Your task to perform on an android device: change notifications settings Image 0: 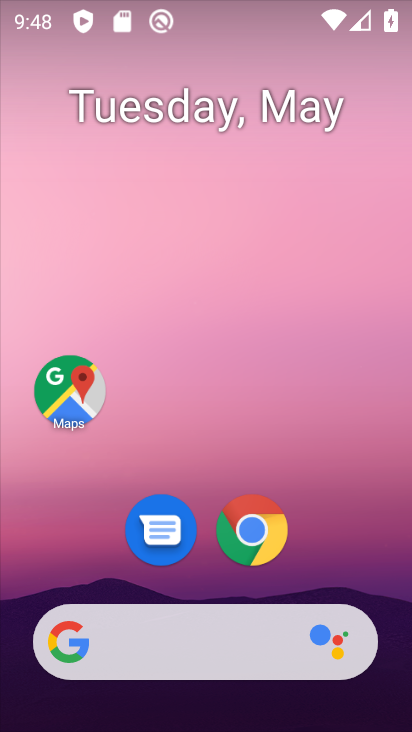
Step 0: drag from (211, 584) to (245, 95)
Your task to perform on an android device: change notifications settings Image 1: 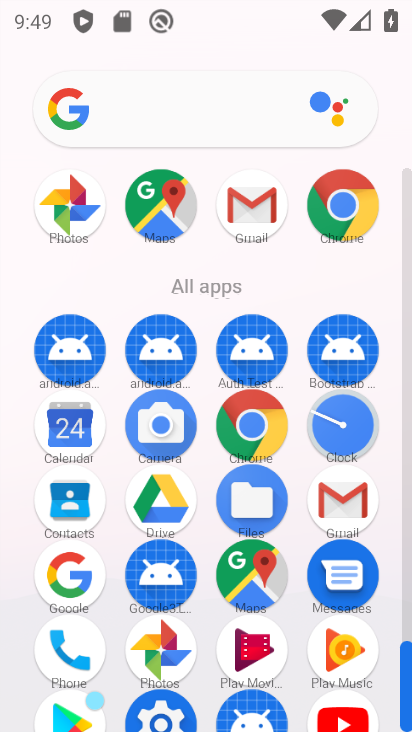
Step 1: drag from (194, 685) to (198, 287)
Your task to perform on an android device: change notifications settings Image 2: 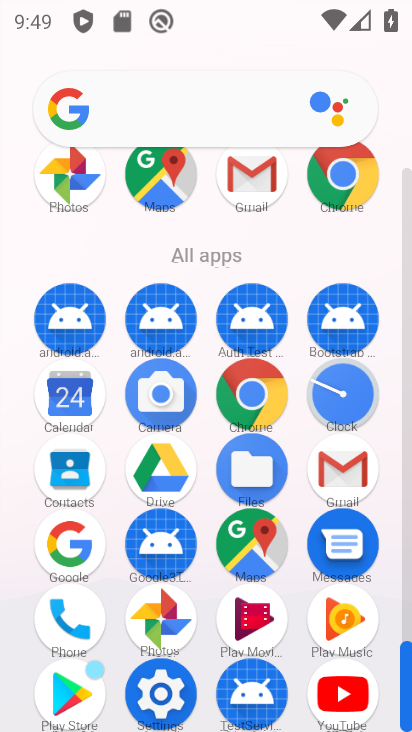
Step 2: click (168, 673)
Your task to perform on an android device: change notifications settings Image 3: 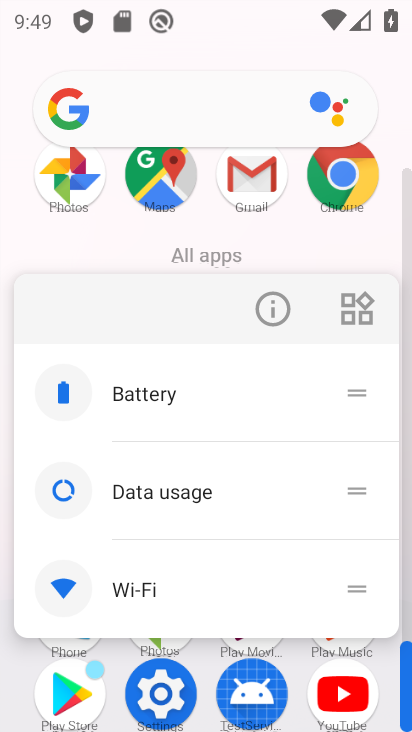
Step 3: click (268, 315)
Your task to perform on an android device: change notifications settings Image 4: 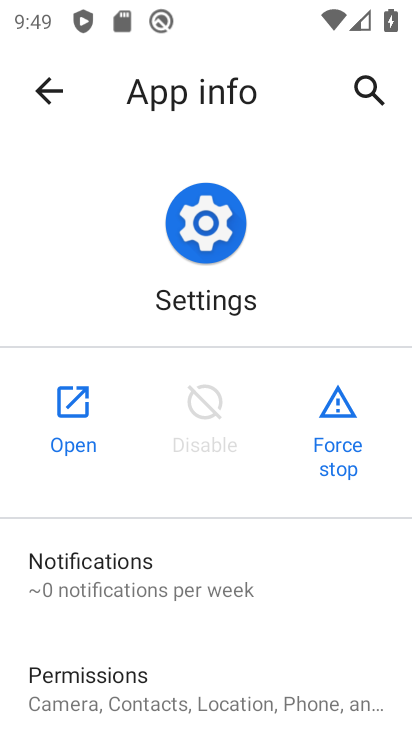
Step 4: click (76, 402)
Your task to perform on an android device: change notifications settings Image 5: 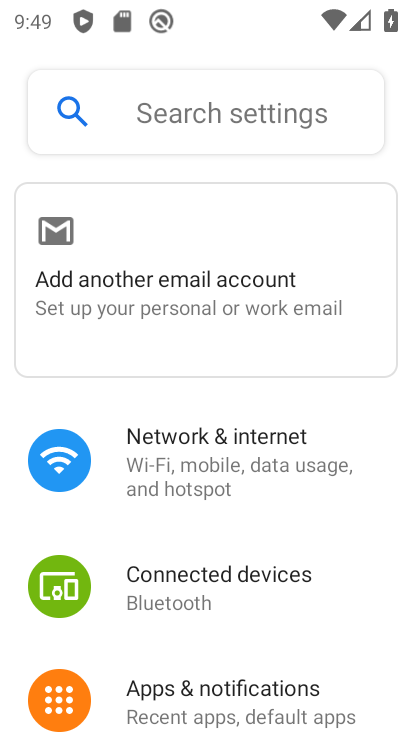
Step 5: drag from (206, 592) to (262, 187)
Your task to perform on an android device: change notifications settings Image 6: 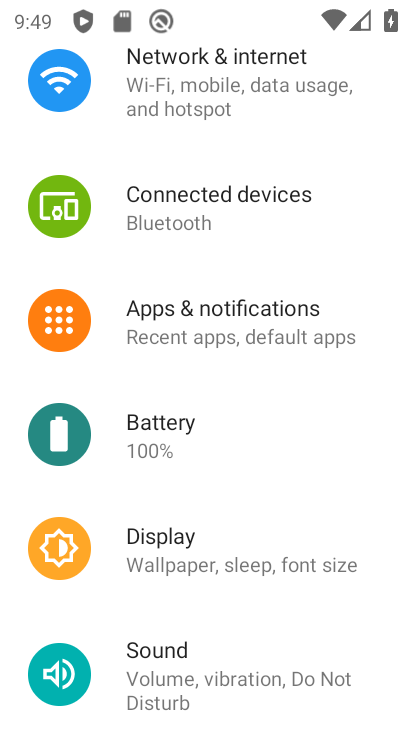
Step 6: drag from (230, 381) to (217, 59)
Your task to perform on an android device: change notifications settings Image 7: 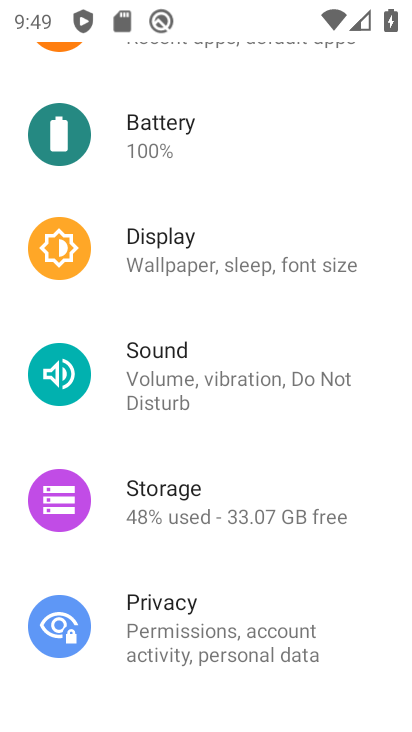
Step 7: drag from (226, 191) to (338, 703)
Your task to perform on an android device: change notifications settings Image 8: 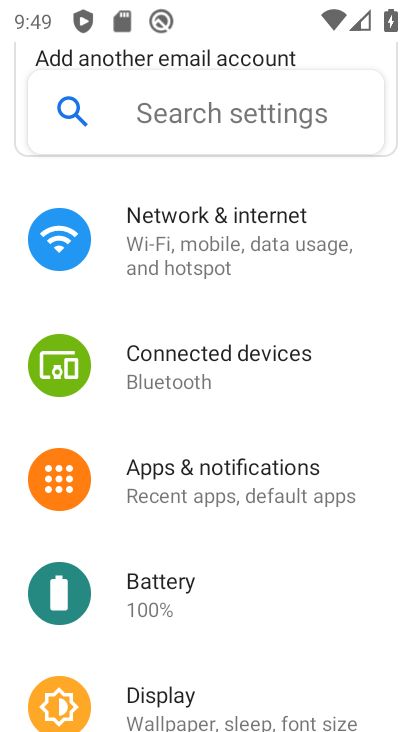
Step 8: drag from (272, 568) to (331, 66)
Your task to perform on an android device: change notifications settings Image 9: 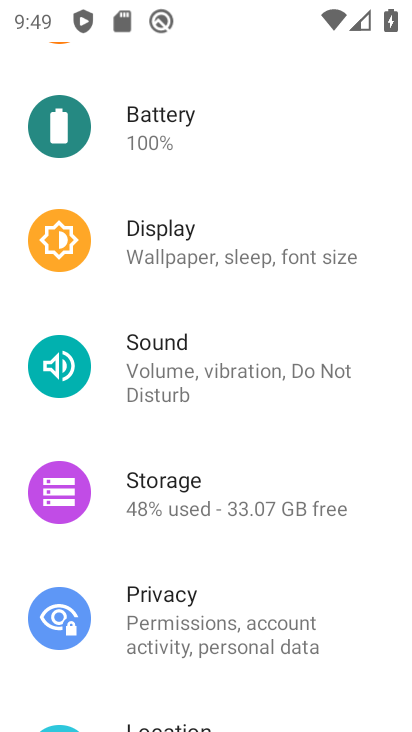
Step 9: drag from (160, 641) to (231, 199)
Your task to perform on an android device: change notifications settings Image 10: 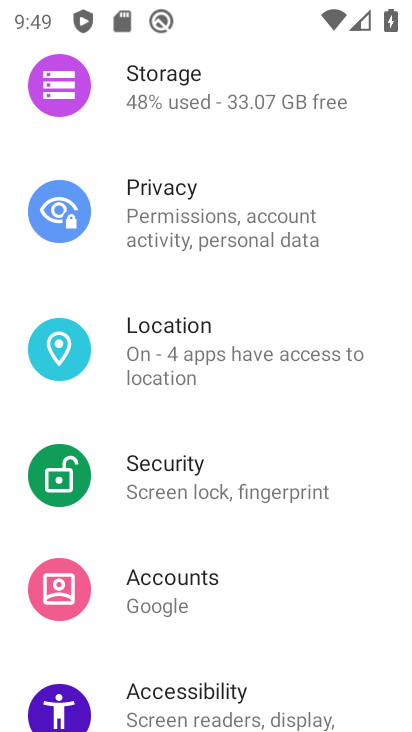
Step 10: drag from (225, 522) to (280, 158)
Your task to perform on an android device: change notifications settings Image 11: 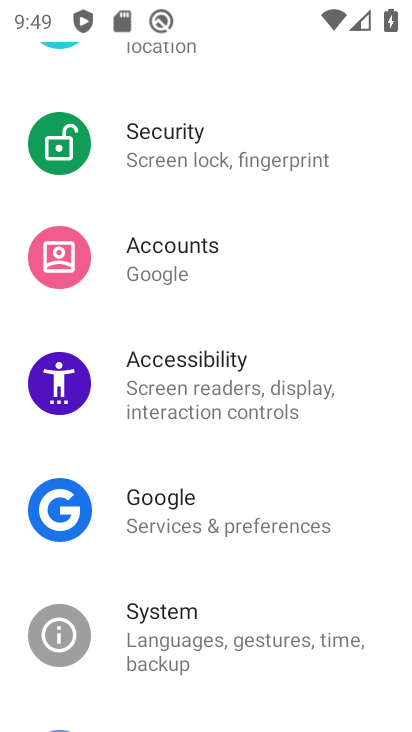
Step 11: drag from (215, 517) to (256, 186)
Your task to perform on an android device: change notifications settings Image 12: 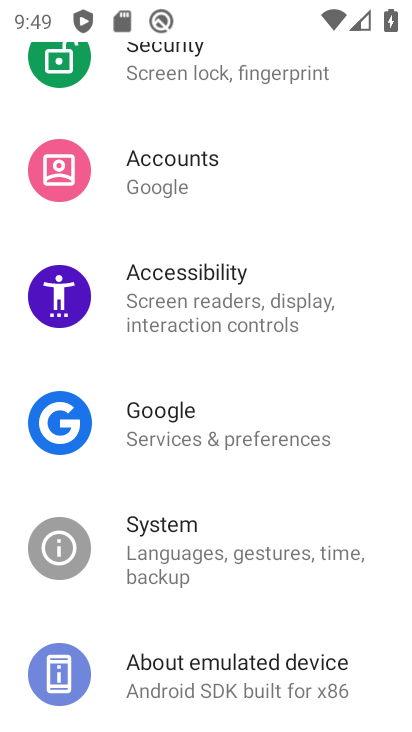
Step 12: drag from (230, 614) to (287, 188)
Your task to perform on an android device: change notifications settings Image 13: 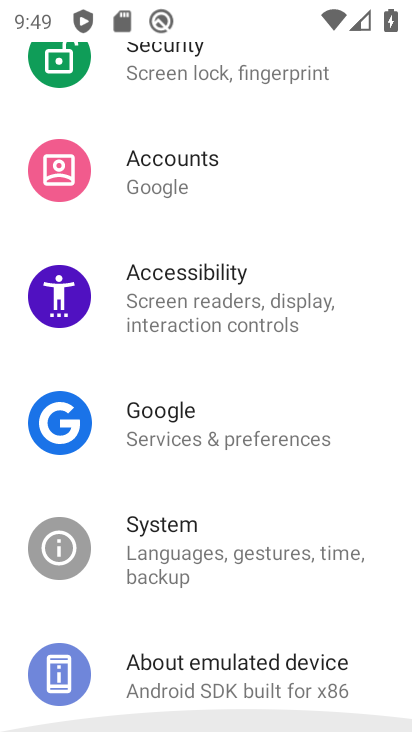
Step 13: drag from (300, 135) to (293, 687)
Your task to perform on an android device: change notifications settings Image 14: 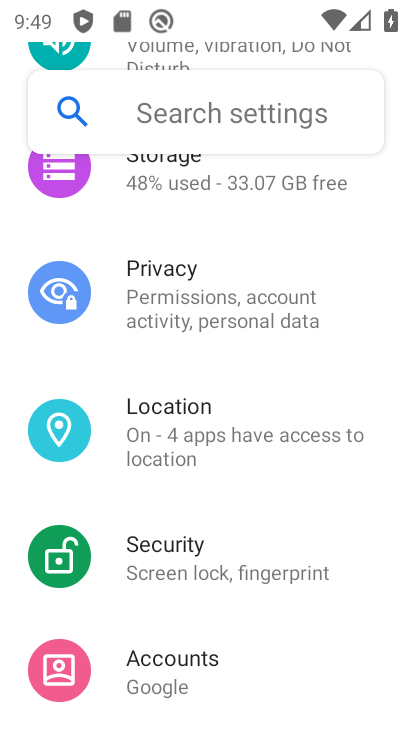
Step 14: drag from (222, 308) to (286, 663)
Your task to perform on an android device: change notifications settings Image 15: 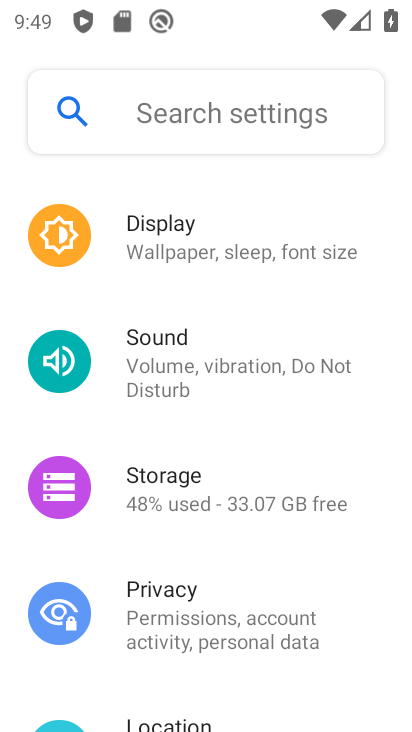
Step 15: drag from (195, 544) to (239, 305)
Your task to perform on an android device: change notifications settings Image 16: 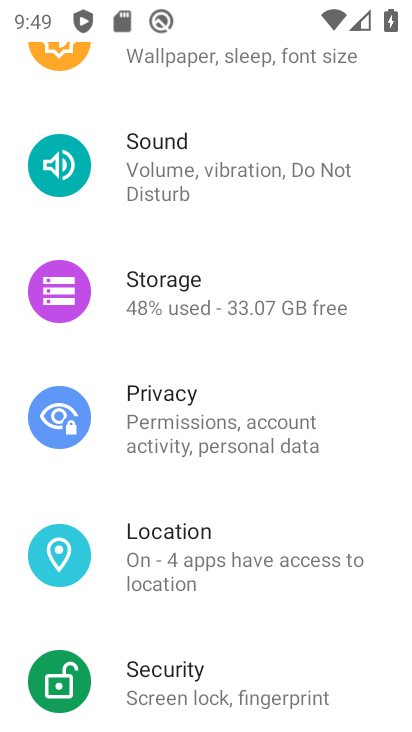
Step 16: drag from (238, 285) to (259, 650)
Your task to perform on an android device: change notifications settings Image 17: 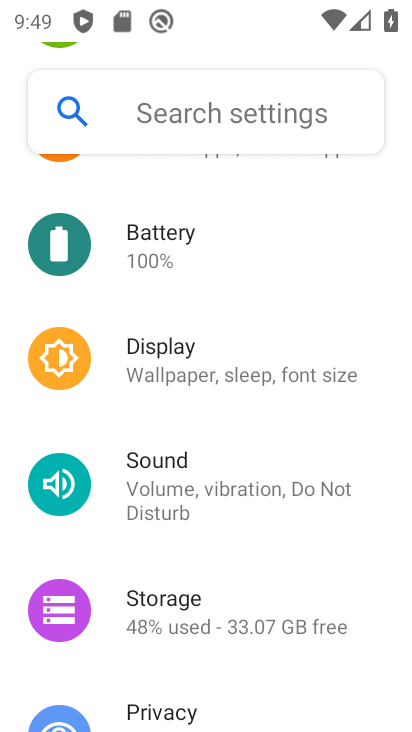
Step 17: drag from (238, 596) to (266, 710)
Your task to perform on an android device: change notifications settings Image 18: 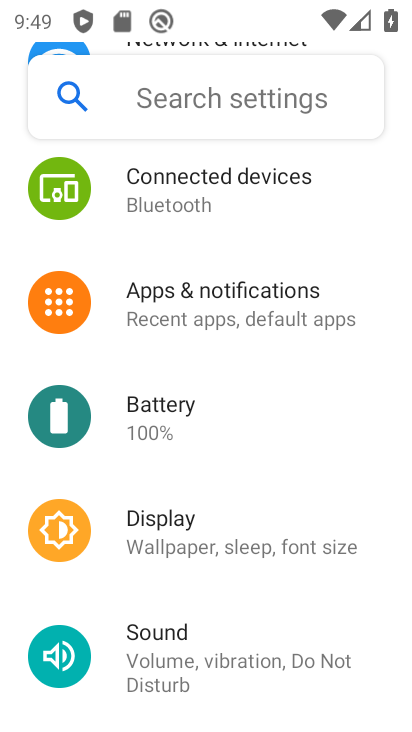
Step 18: click (183, 308)
Your task to perform on an android device: change notifications settings Image 19: 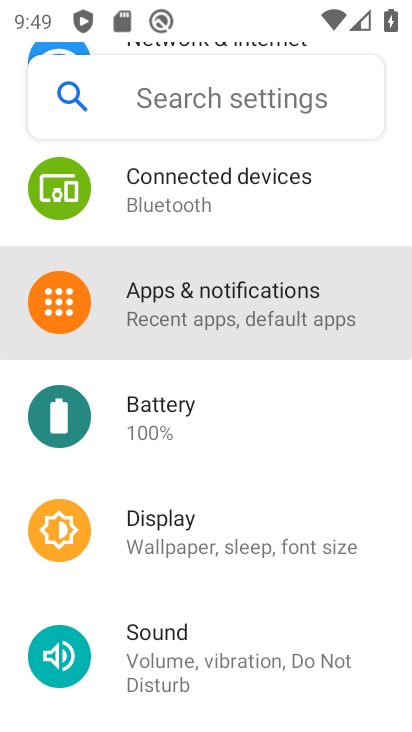
Step 19: click (183, 308)
Your task to perform on an android device: change notifications settings Image 20: 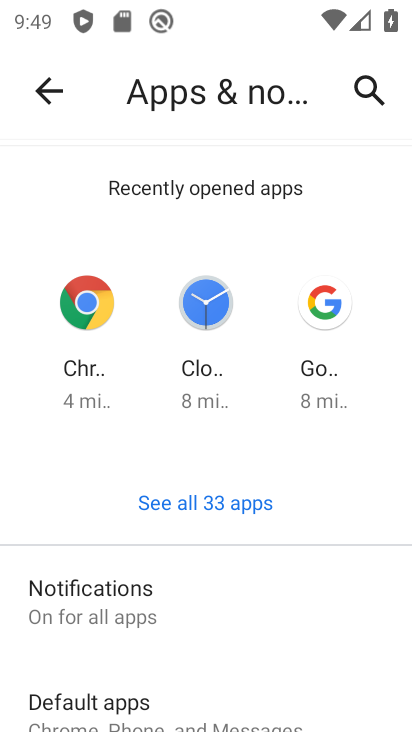
Step 20: drag from (275, 269) to (276, 606)
Your task to perform on an android device: change notifications settings Image 21: 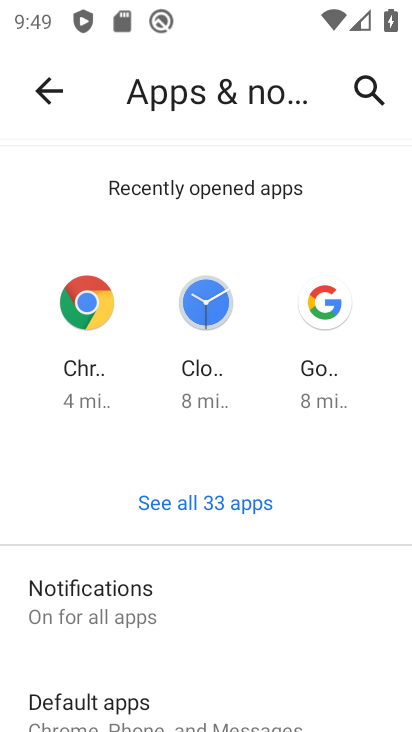
Step 21: drag from (248, 350) to (294, 642)
Your task to perform on an android device: change notifications settings Image 22: 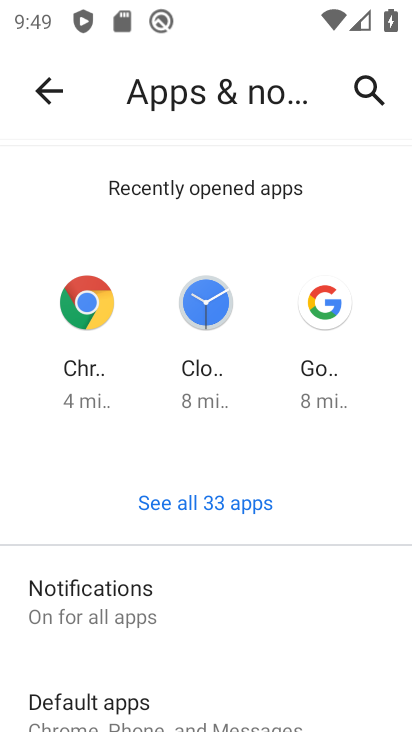
Step 22: drag from (218, 595) to (299, 243)
Your task to perform on an android device: change notifications settings Image 23: 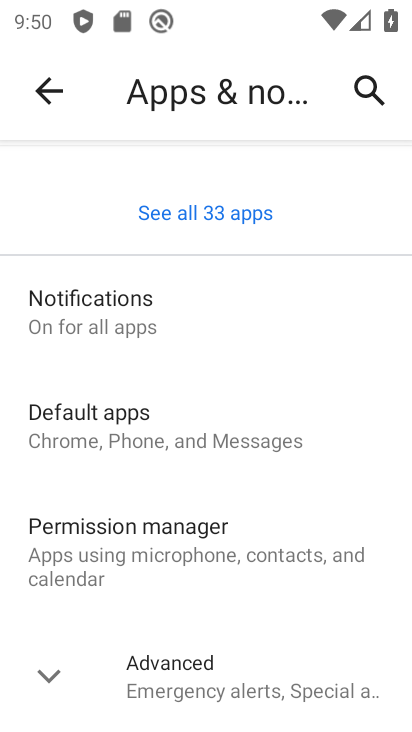
Step 23: click (203, 282)
Your task to perform on an android device: change notifications settings Image 24: 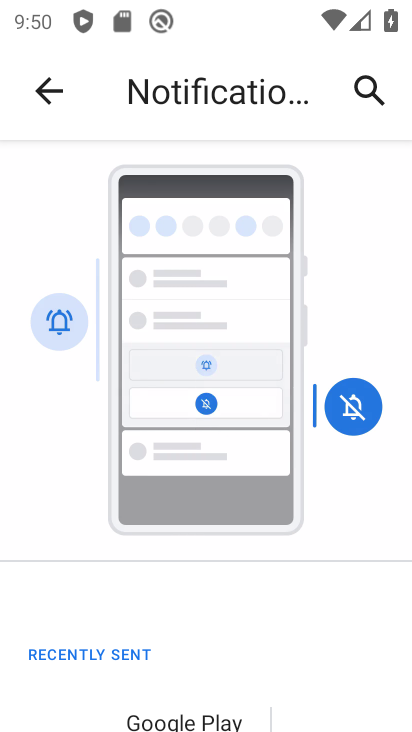
Step 24: drag from (232, 594) to (356, 30)
Your task to perform on an android device: change notifications settings Image 25: 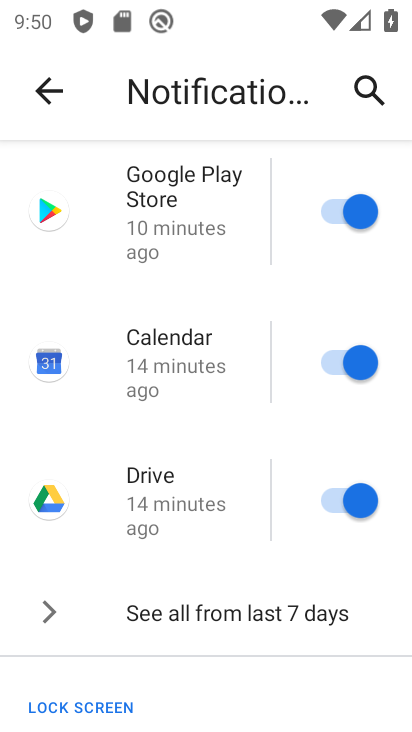
Step 25: drag from (213, 494) to (212, 78)
Your task to perform on an android device: change notifications settings Image 26: 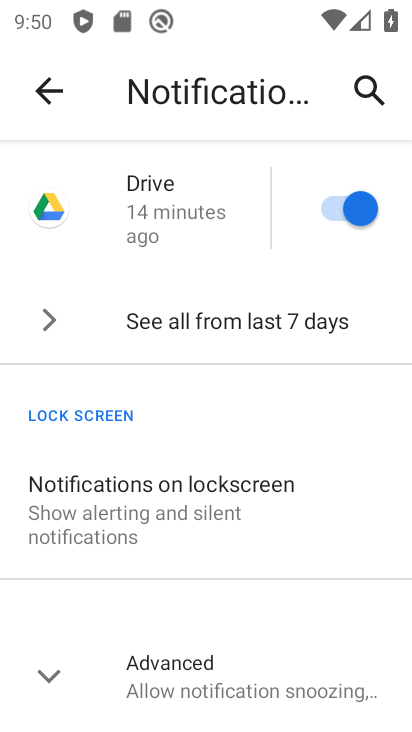
Step 26: drag from (203, 504) to (219, 148)
Your task to perform on an android device: change notifications settings Image 27: 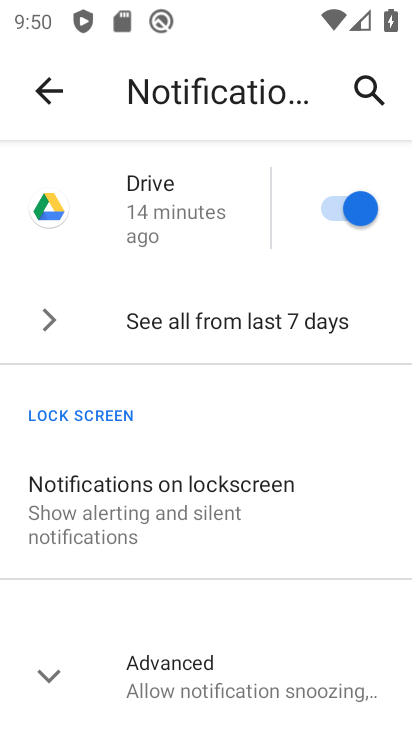
Step 27: click (194, 693)
Your task to perform on an android device: change notifications settings Image 28: 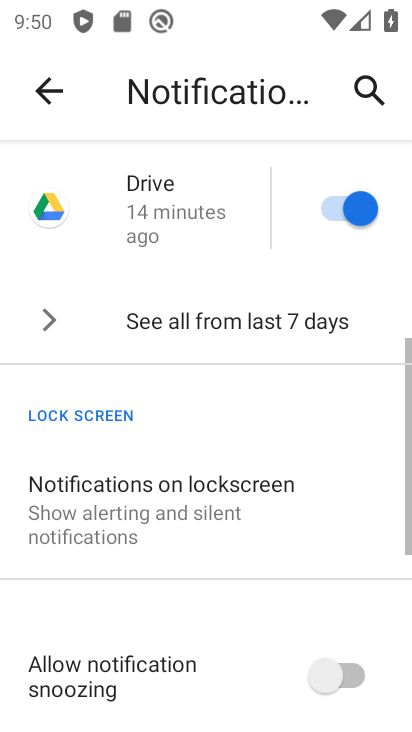
Step 28: drag from (192, 680) to (279, 227)
Your task to perform on an android device: change notifications settings Image 29: 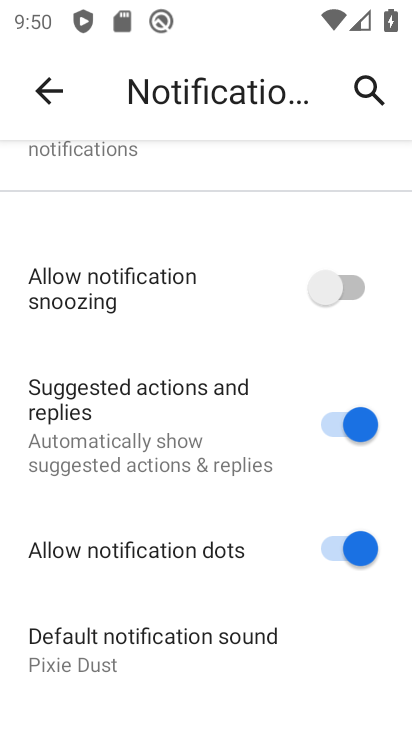
Step 29: drag from (310, 577) to (336, 231)
Your task to perform on an android device: change notifications settings Image 30: 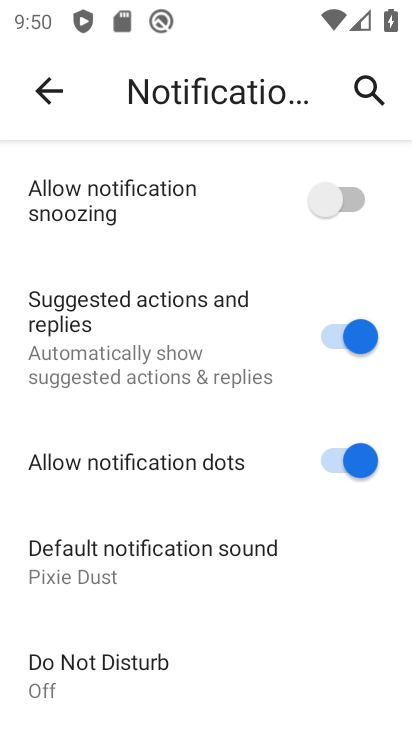
Step 30: drag from (262, 199) to (328, 722)
Your task to perform on an android device: change notifications settings Image 31: 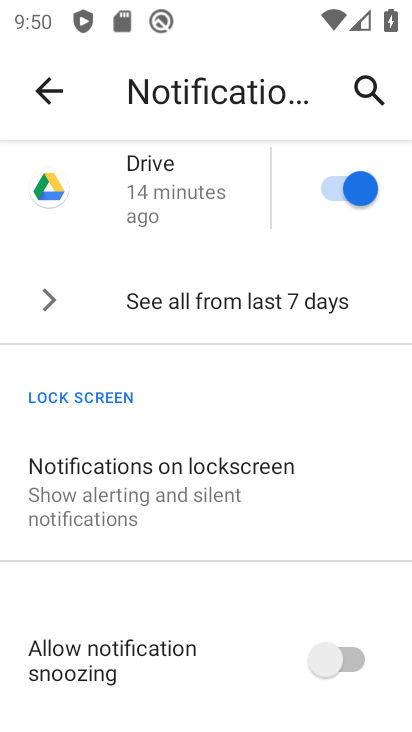
Step 31: drag from (229, 223) to (298, 620)
Your task to perform on an android device: change notifications settings Image 32: 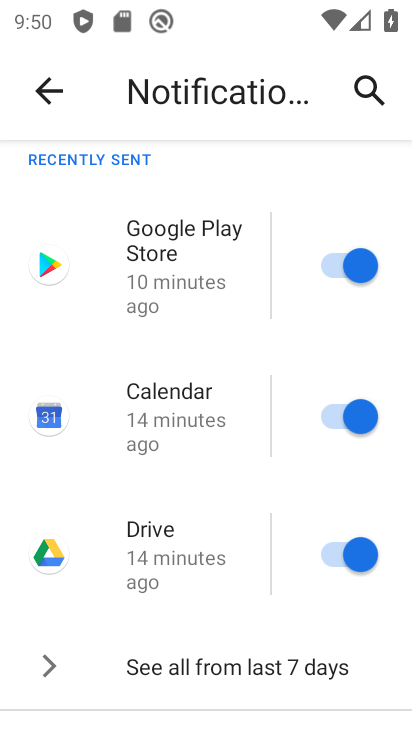
Step 32: drag from (247, 238) to (323, 536)
Your task to perform on an android device: change notifications settings Image 33: 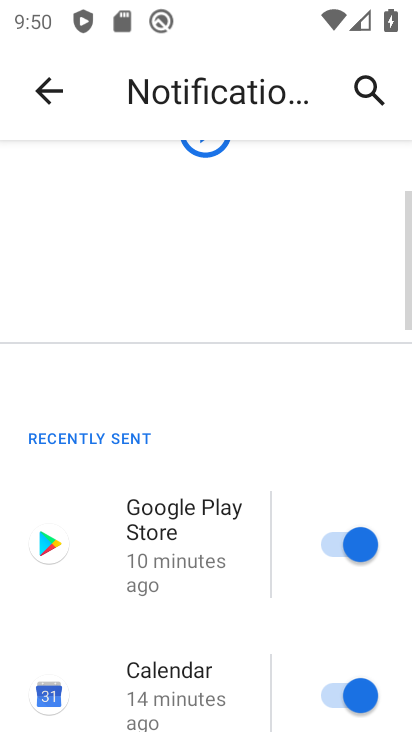
Step 33: drag from (218, 519) to (274, 4)
Your task to perform on an android device: change notifications settings Image 34: 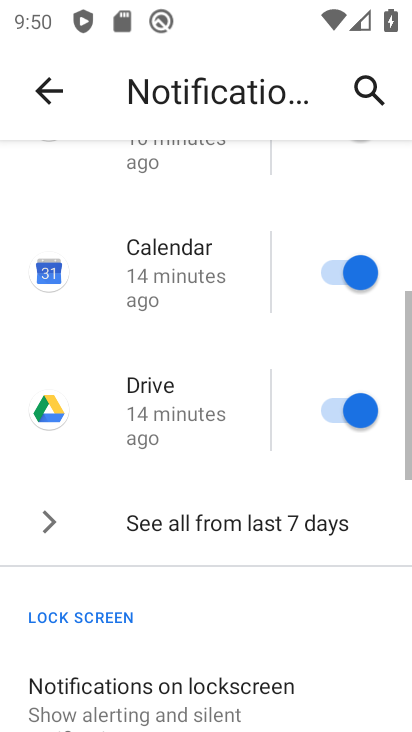
Step 34: drag from (202, 596) to (231, 269)
Your task to perform on an android device: change notifications settings Image 35: 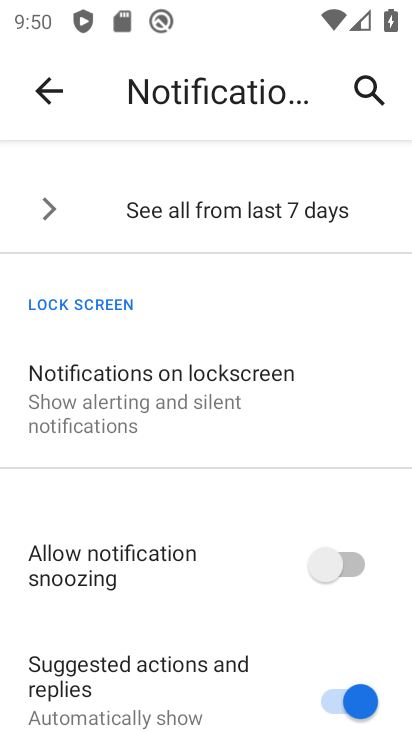
Step 35: drag from (213, 499) to (230, 216)
Your task to perform on an android device: change notifications settings Image 36: 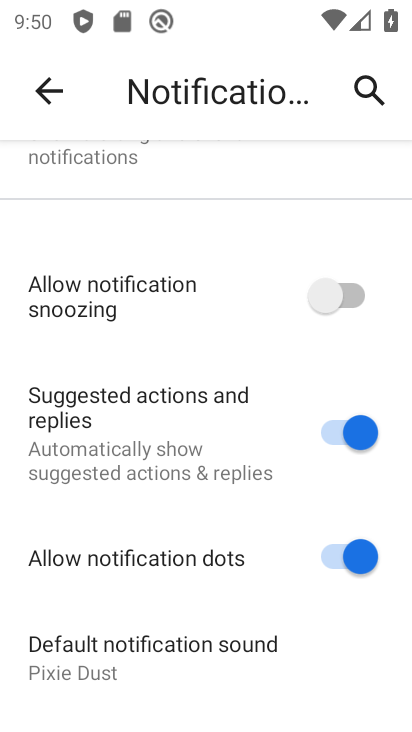
Step 36: click (352, 282)
Your task to perform on an android device: change notifications settings Image 37: 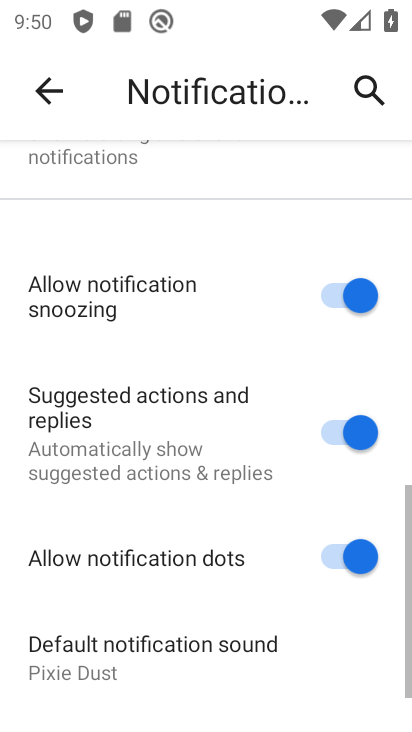
Step 37: task complete